Your task to perform on an android device: remove spam from my inbox in the gmail app Image 0: 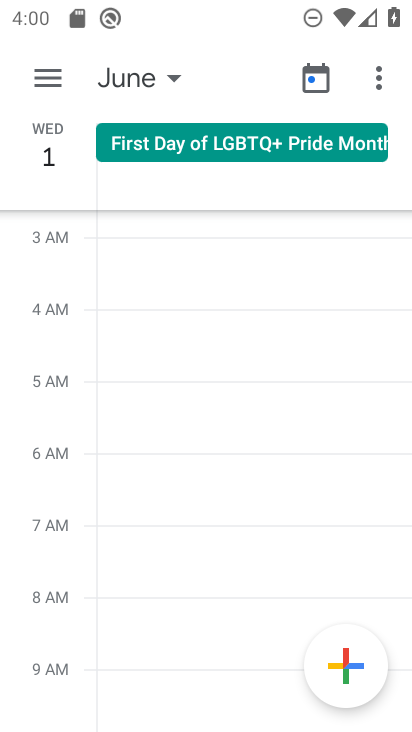
Step 0: press home button
Your task to perform on an android device: remove spam from my inbox in the gmail app Image 1: 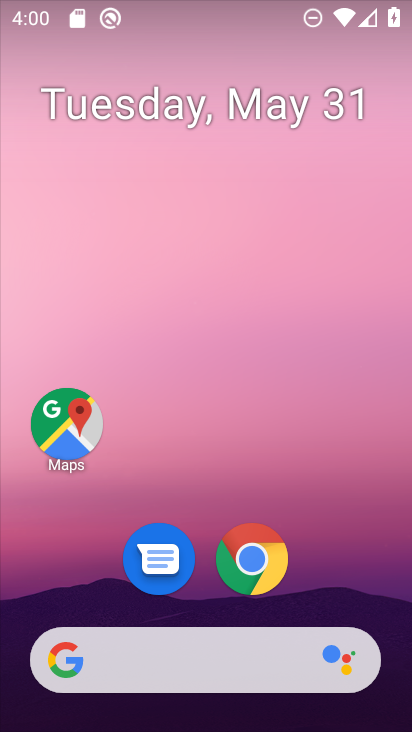
Step 1: drag from (220, 724) to (217, 38)
Your task to perform on an android device: remove spam from my inbox in the gmail app Image 2: 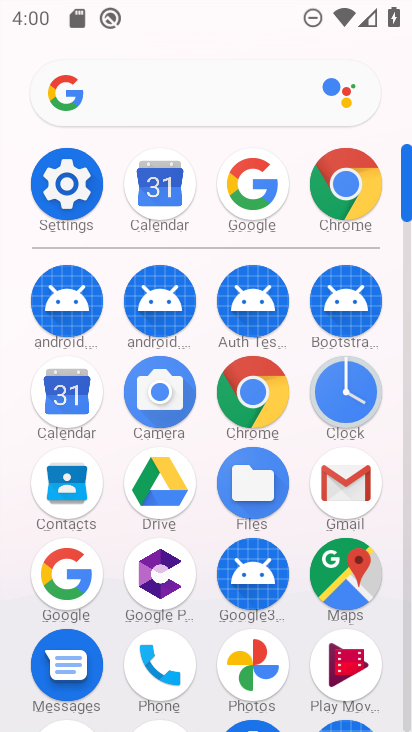
Step 2: click (337, 496)
Your task to perform on an android device: remove spam from my inbox in the gmail app Image 3: 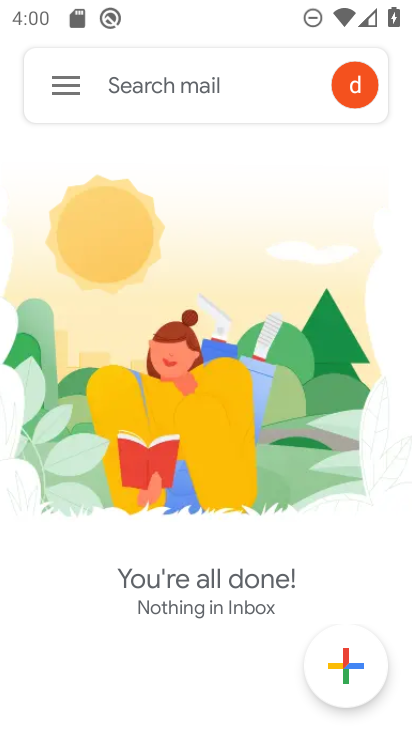
Step 3: click (60, 89)
Your task to perform on an android device: remove spam from my inbox in the gmail app Image 4: 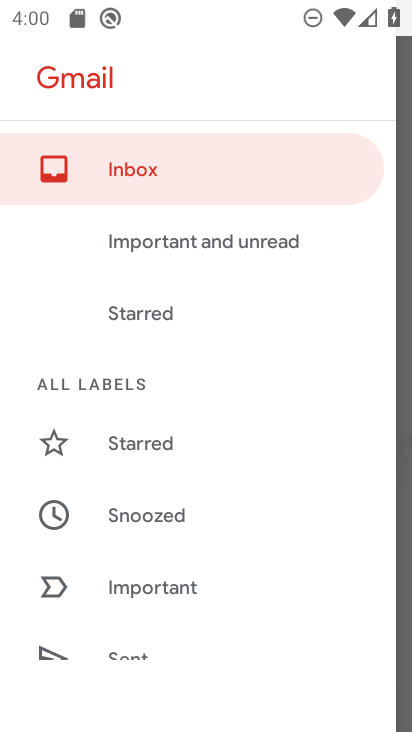
Step 4: drag from (136, 666) to (134, 242)
Your task to perform on an android device: remove spam from my inbox in the gmail app Image 5: 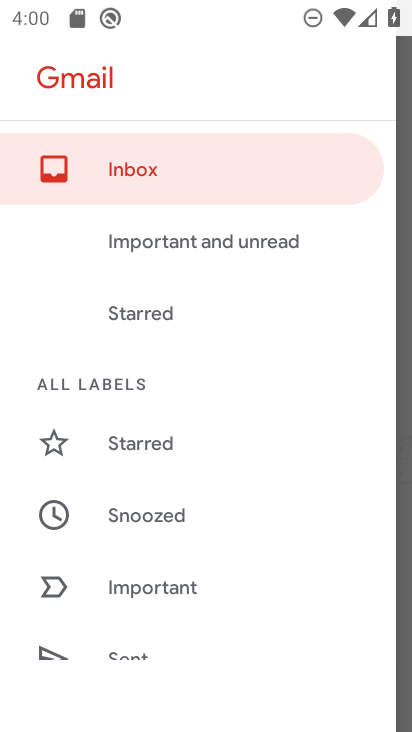
Step 5: drag from (155, 633) to (168, 249)
Your task to perform on an android device: remove spam from my inbox in the gmail app Image 6: 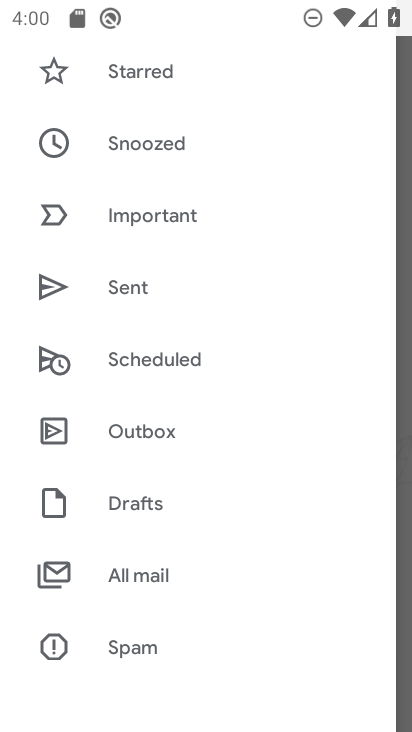
Step 6: drag from (223, 107) to (255, 569)
Your task to perform on an android device: remove spam from my inbox in the gmail app Image 7: 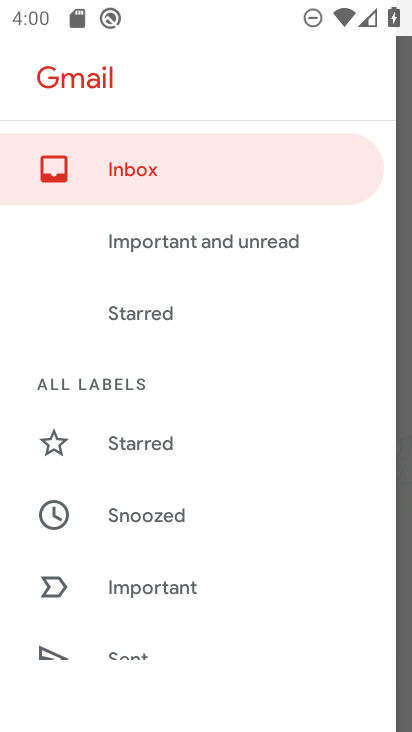
Step 7: click (148, 172)
Your task to perform on an android device: remove spam from my inbox in the gmail app Image 8: 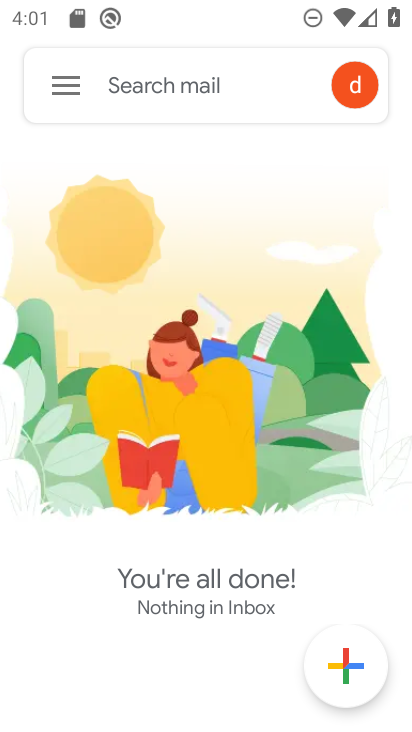
Step 8: task complete